Your task to perform on an android device: Open settings on Google Maps Image 0: 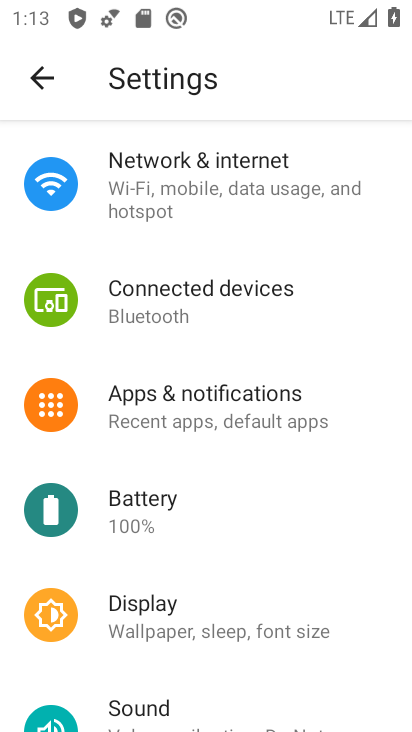
Step 0: press home button
Your task to perform on an android device: Open settings on Google Maps Image 1: 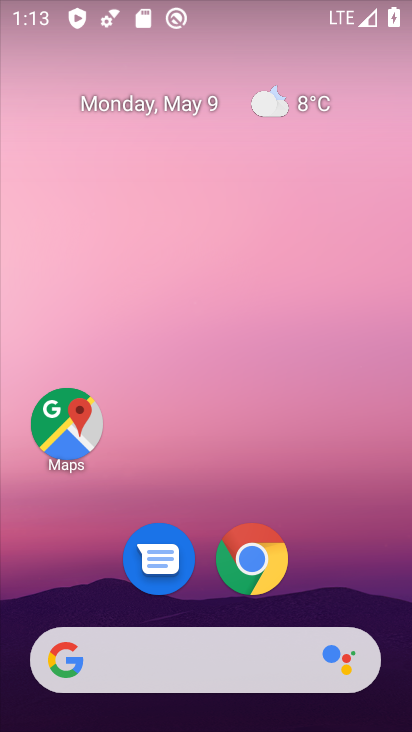
Step 1: click (57, 433)
Your task to perform on an android device: Open settings on Google Maps Image 2: 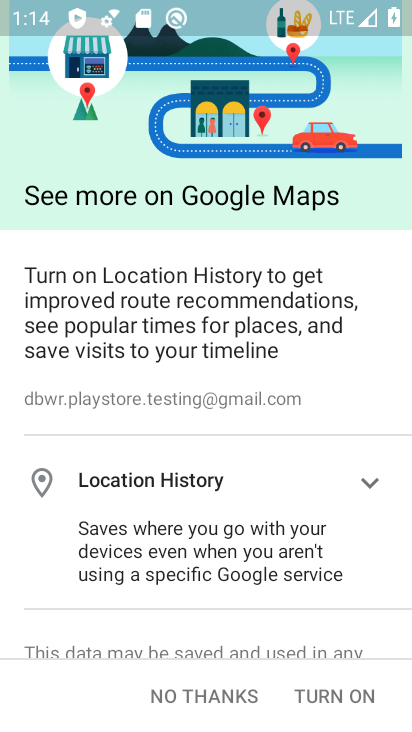
Step 2: click (329, 700)
Your task to perform on an android device: Open settings on Google Maps Image 3: 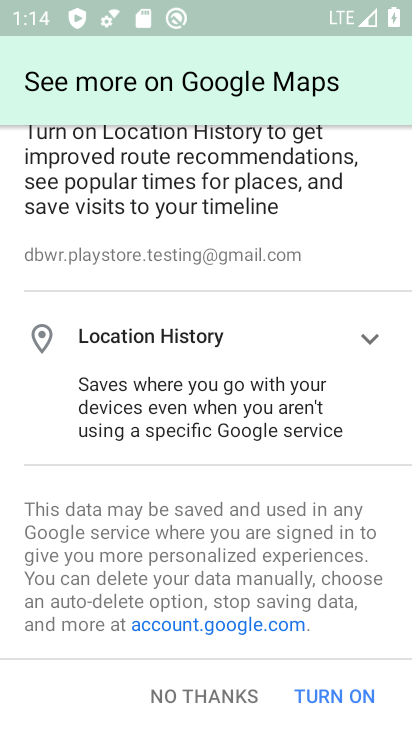
Step 3: click (332, 688)
Your task to perform on an android device: Open settings on Google Maps Image 4: 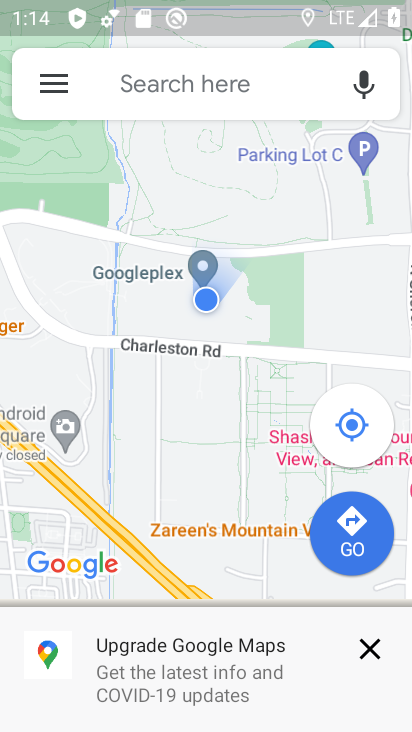
Step 4: click (50, 84)
Your task to perform on an android device: Open settings on Google Maps Image 5: 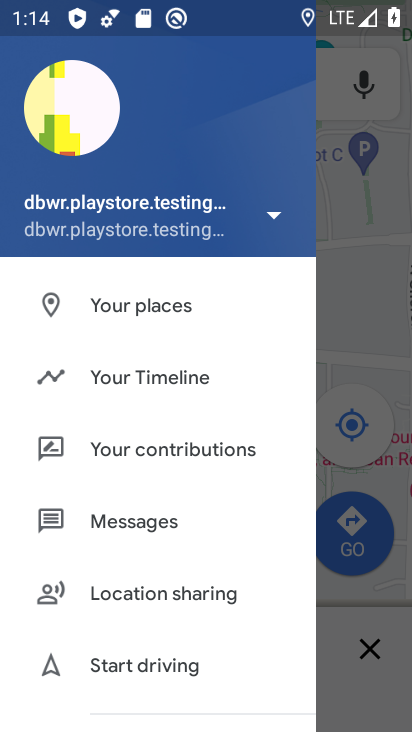
Step 5: drag from (223, 628) to (240, 269)
Your task to perform on an android device: Open settings on Google Maps Image 6: 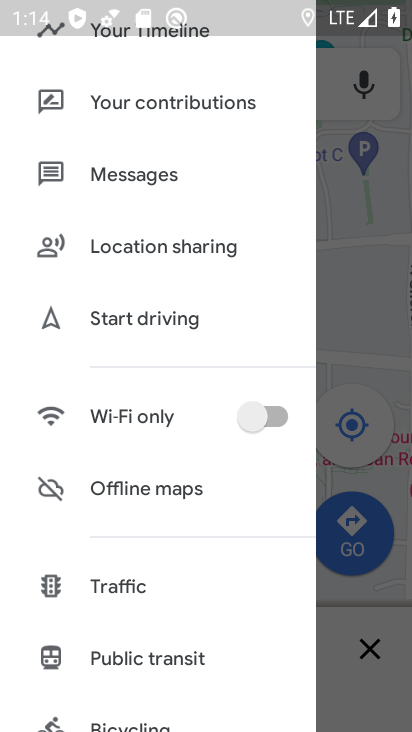
Step 6: drag from (150, 619) to (150, 261)
Your task to perform on an android device: Open settings on Google Maps Image 7: 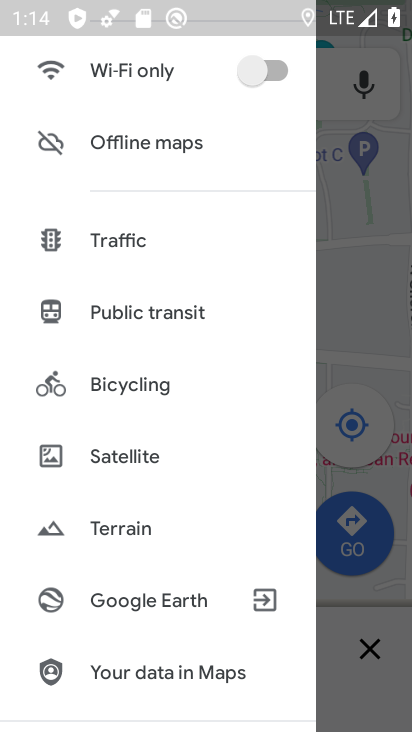
Step 7: drag from (122, 575) to (99, 237)
Your task to perform on an android device: Open settings on Google Maps Image 8: 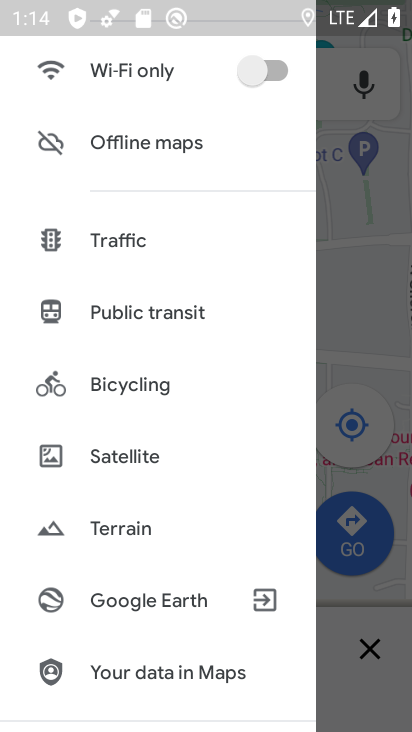
Step 8: drag from (145, 555) to (140, 304)
Your task to perform on an android device: Open settings on Google Maps Image 9: 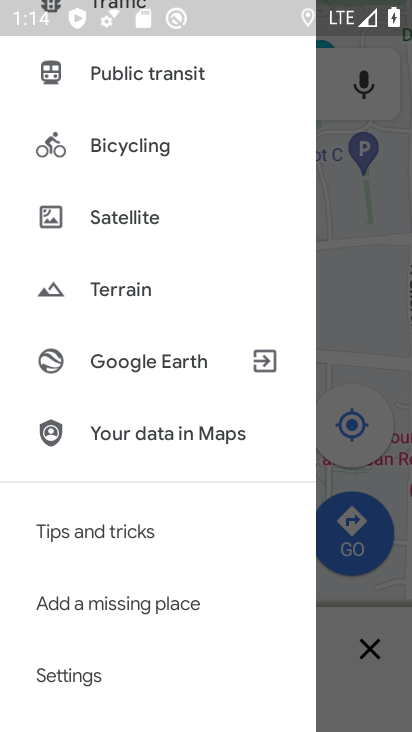
Step 9: click (80, 671)
Your task to perform on an android device: Open settings on Google Maps Image 10: 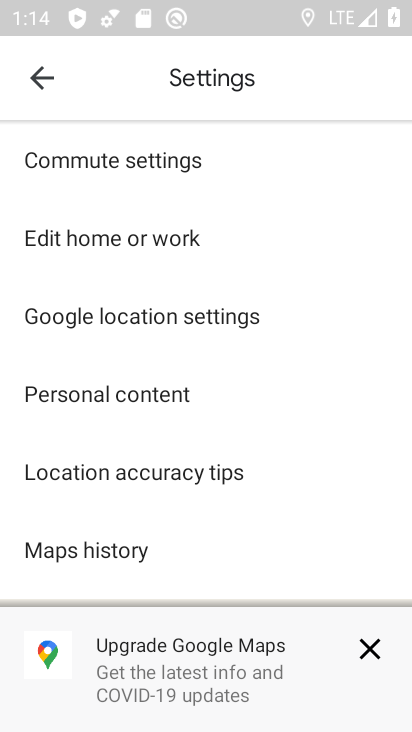
Step 10: task complete